Your task to perform on an android device: Open wifi settings Image 0: 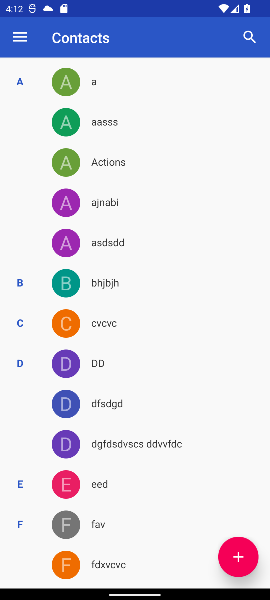
Step 0: press home button
Your task to perform on an android device: Open wifi settings Image 1: 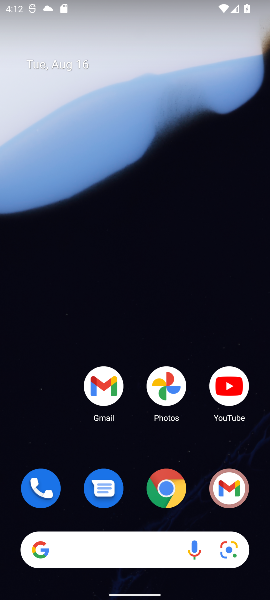
Step 1: click (145, 124)
Your task to perform on an android device: Open wifi settings Image 2: 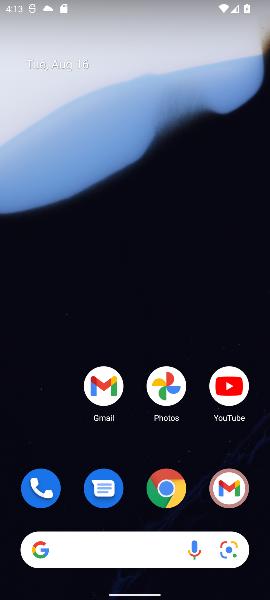
Step 2: drag from (74, 389) to (119, 39)
Your task to perform on an android device: Open wifi settings Image 3: 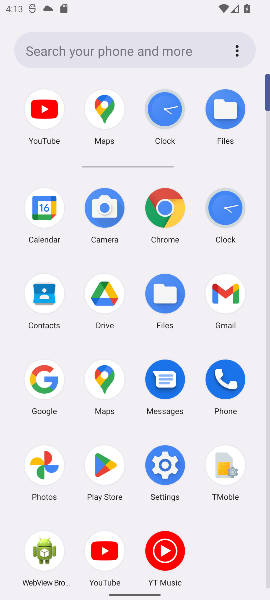
Step 3: click (159, 464)
Your task to perform on an android device: Open wifi settings Image 4: 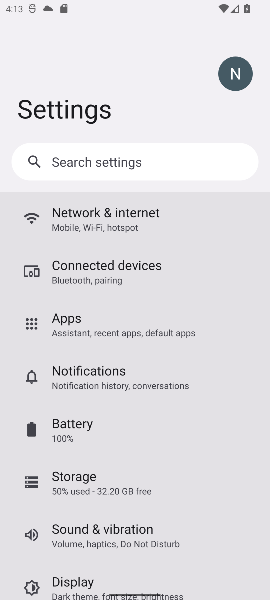
Step 4: task complete